Your task to perform on an android device: Go to ESPN.com Image 0: 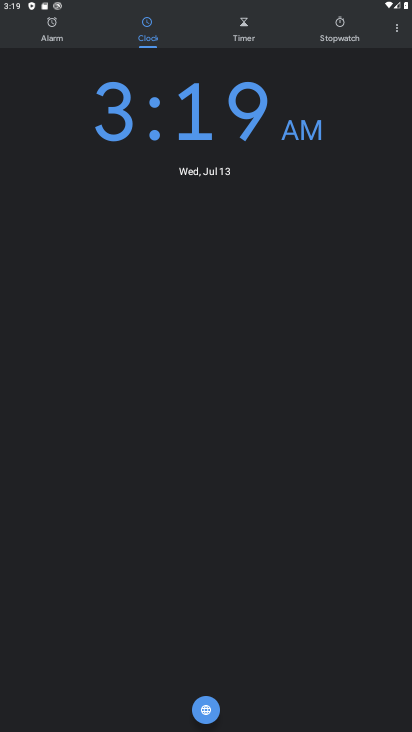
Step 0: press home button
Your task to perform on an android device: Go to ESPN.com Image 1: 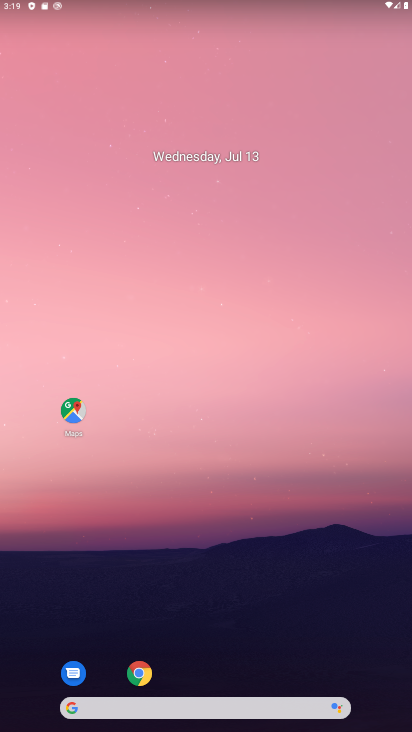
Step 1: click (142, 672)
Your task to perform on an android device: Go to ESPN.com Image 2: 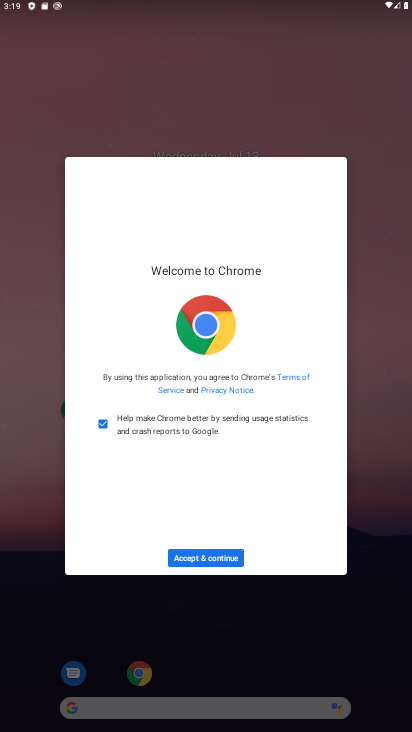
Step 2: click (208, 553)
Your task to perform on an android device: Go to ESPN.com Image 3: 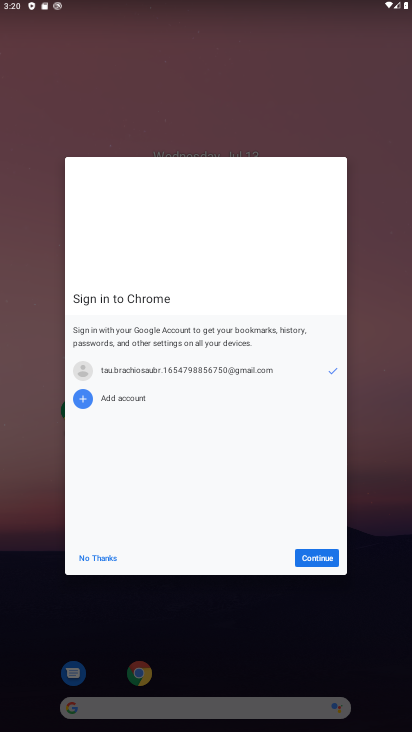
Step 3: click (314, 556)
Your task to perform on an android device: Go to ESPN.com Image 4: 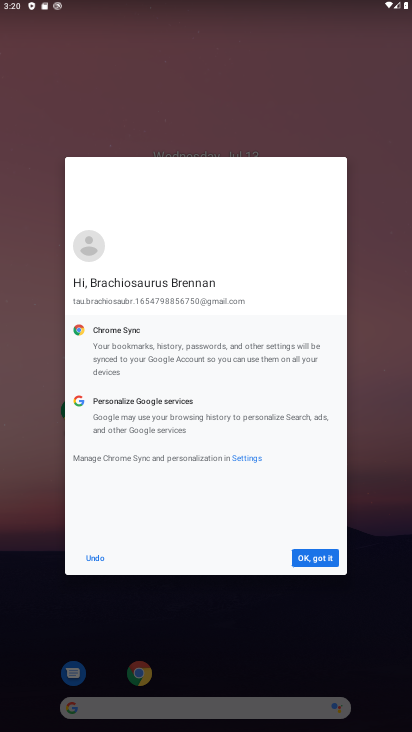
Step 4: click (314, 556)
Your task to perform on an android device: Go to ESPN.com Image 5: 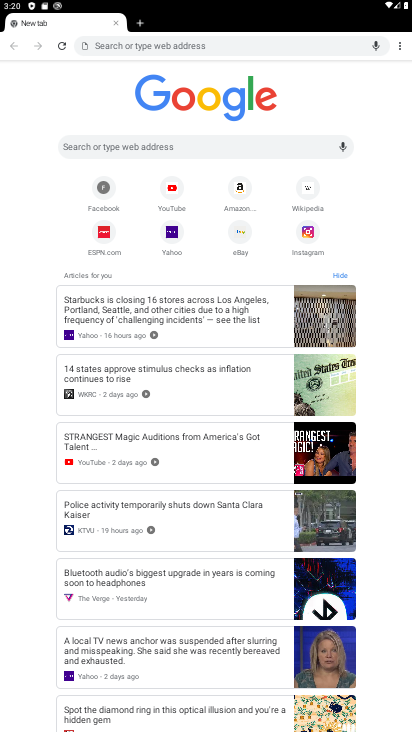
Step 5: click (107, 228)
Your task to perform on an android device: Go to ESPN.com Image 6: 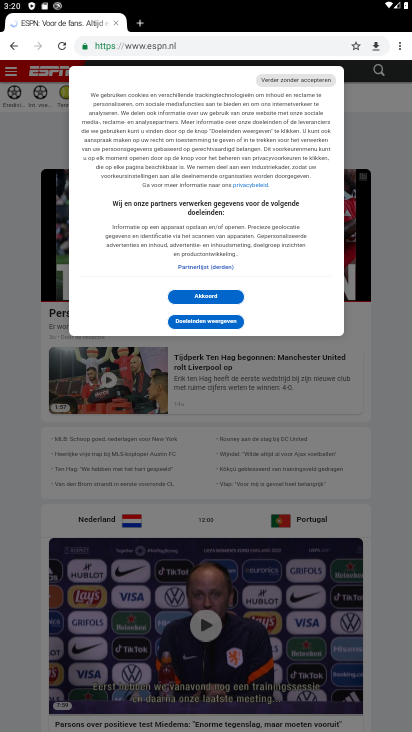
Step 6: click (220, 297)
Your task to perform on an android device: Go to ESPN.com Image 7: 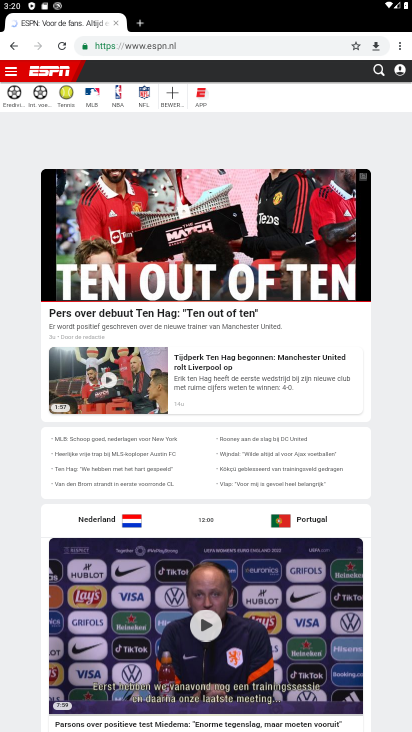
Step 7: task complete